Your task to perform on an android device: delete browsing data in the chrome app Image 0: 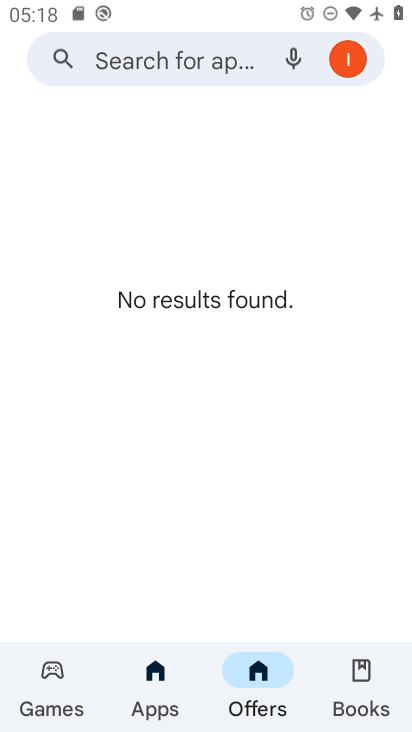
Step 0: press home button
Your task to perform on an android device: delete browsing data in the chrome app Image 1: 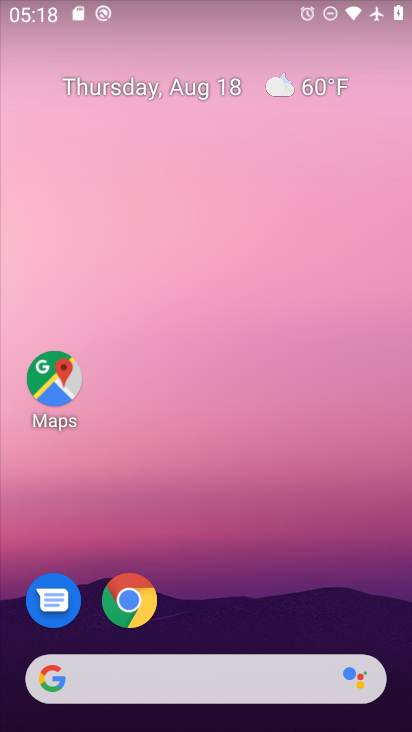
Step 1: click (136, 595)
Your task to perform on an android device: delete browsing data in the chrome app Image 2: 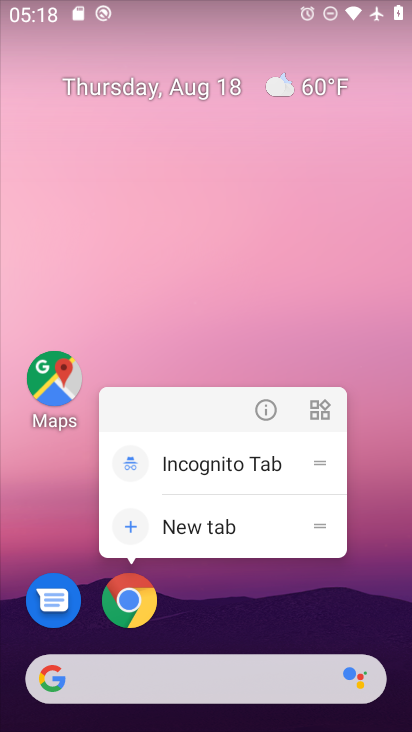
Step 2: click (136, 595)
Your task to perform on an android device: delete browsing data in the chrome app Image 3: 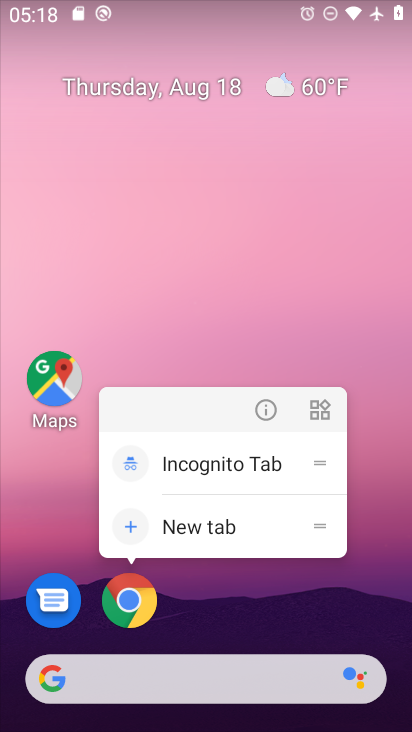
Step 3: click (129, 605)
Your task to perform on an android device: delete browsing data in the chrome app Image 4: 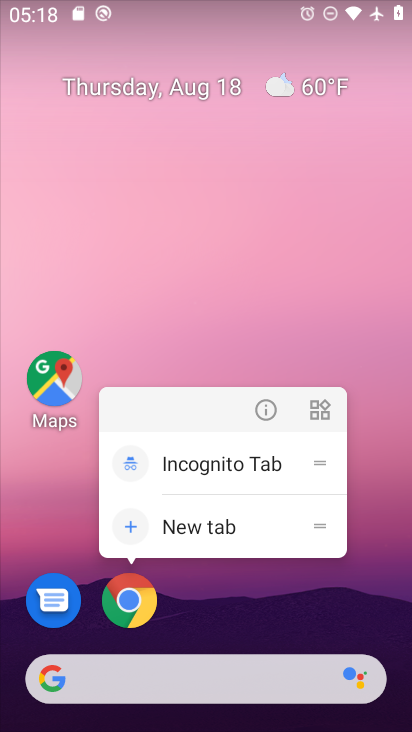
Step 4: click (129, 605)
Your task to perform on an android device: delete browsing data in the chrome app Image 5: 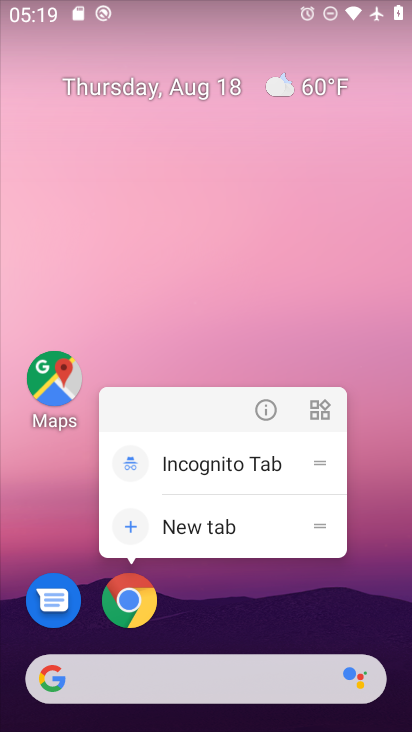
Step 5: click (134, 611)
Your task to perform on an android device: delete browsing data in the chrome app Image 6: 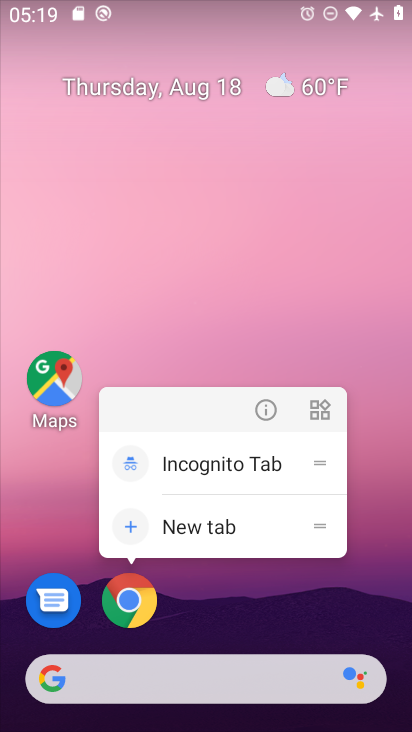
Step 6: click (134, 611)
Your task to perform on an android device: delete browsing data in the chrome app Image 7: 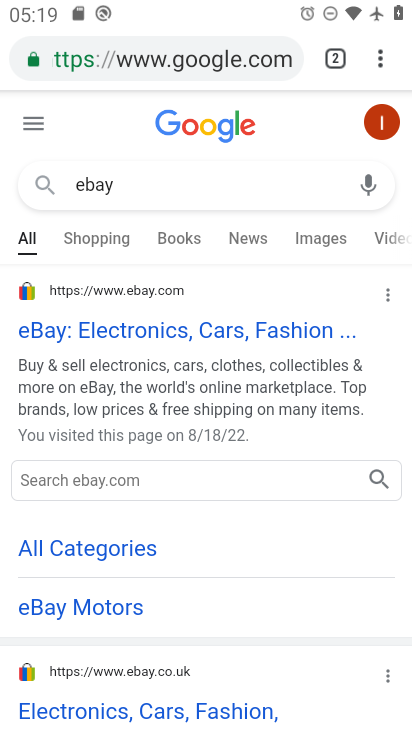
Step 7: drag from (378, 56) to (174, 639)
Your task to perform on an android device: delete browsing data in the chrome app Image 8: 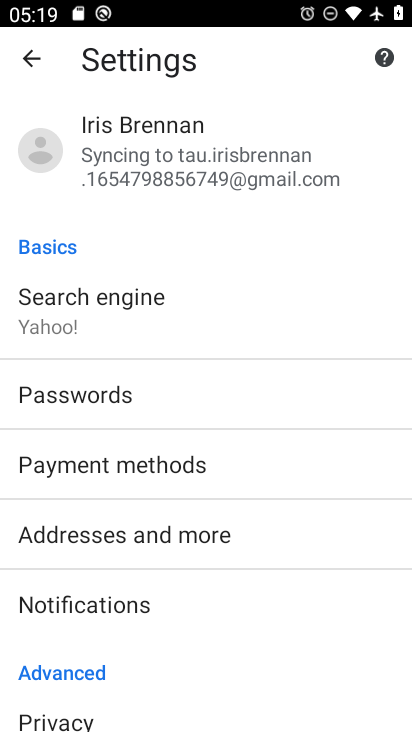
Step 8: drag from (277, 676) to (247, 179)
Your task to perform on an android device: delete browsing data in the chrome app Image 9: 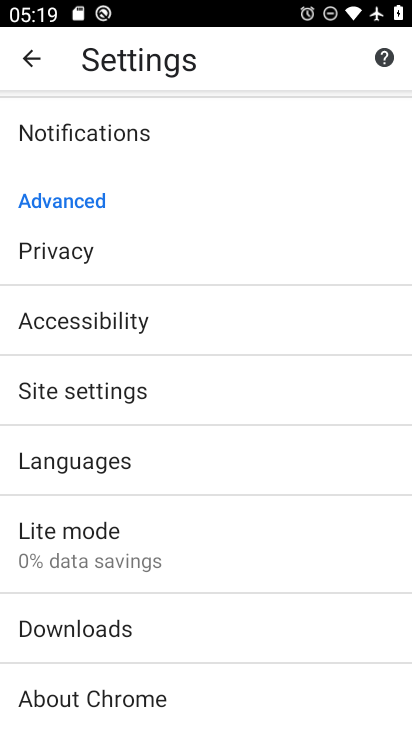
Step 9: click (57, 249)
Your task to perform on an android device: delete browsing data in the chrome app Image 10: 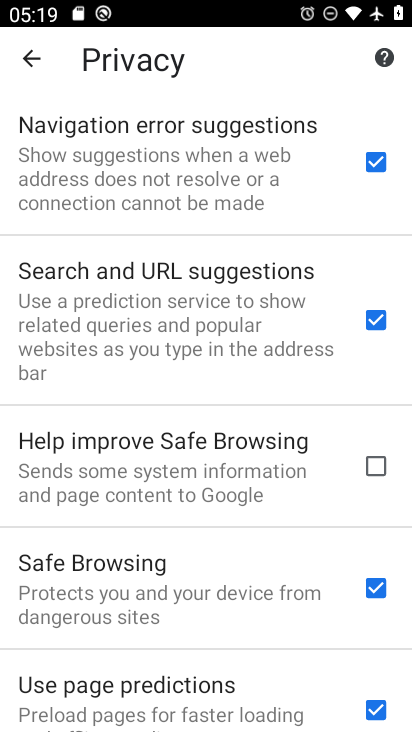
Step 10: drag from (274, 661) to (280, 3)
Your task to perform on an android device: delete browsing data in the chrome app Image 11: 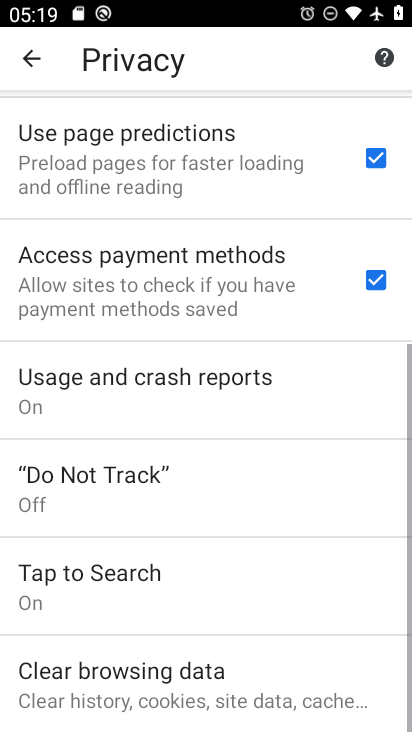
Step 11: click (147, 666)
Your task to perform on an android device: delete browsing data in the chrome app Image 12: 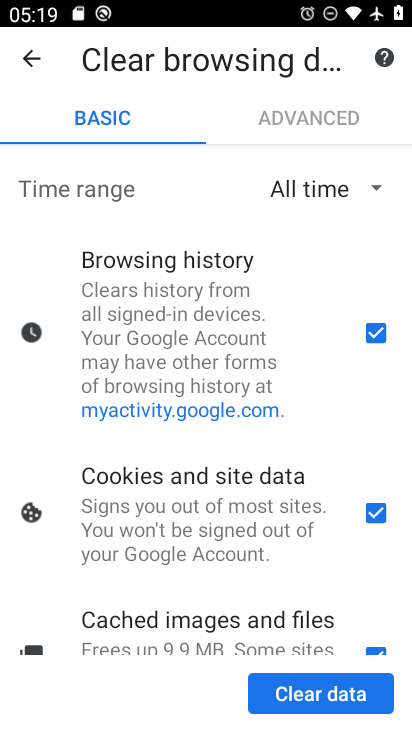
Step 12: click (322, 699)
Your task to perform on an android device: delete browsing data in the chrome app Image 13: 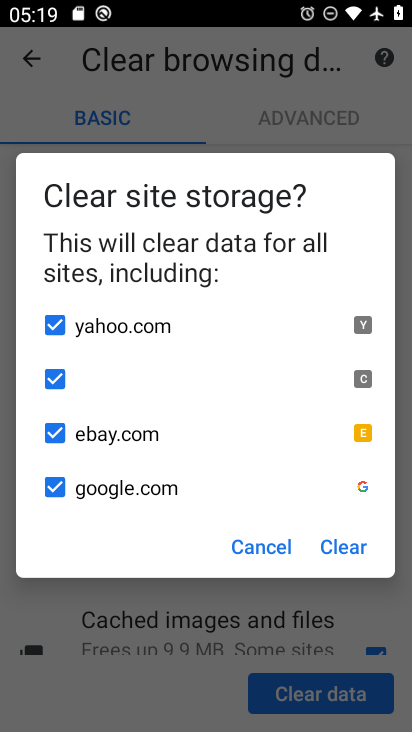
Step 13: click (341, 550)
Your task to perform on an android device: delete browsing data in the chrome app Image 14: 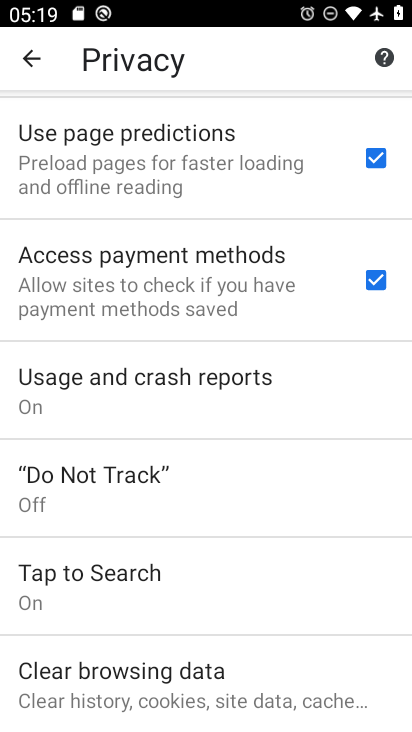
Step 14: task complete